Your task to perform on an android device: What's the weather today? Image 0: 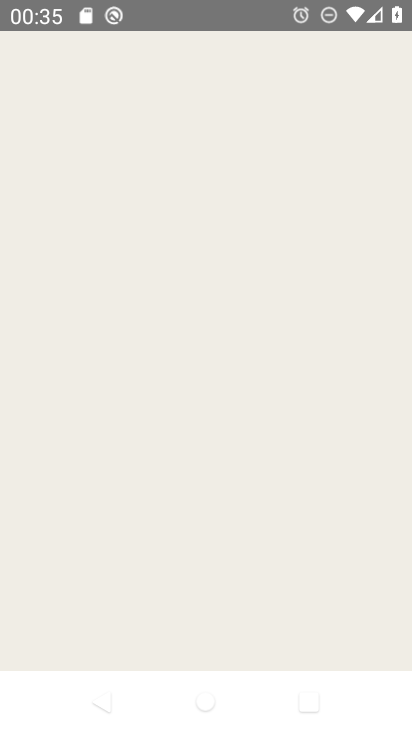
Step 0: press home button
Your task to perform on an android device: What's the weather today? Image 1: 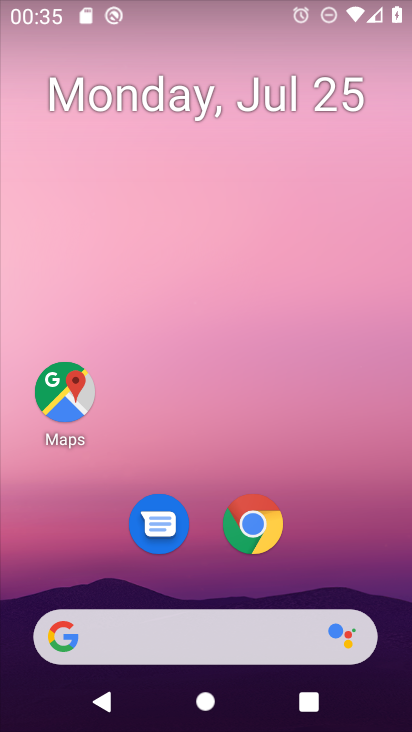
Step 1: click (170, 634)
Your task to perform on an android device: What's the weather today? Image 2: 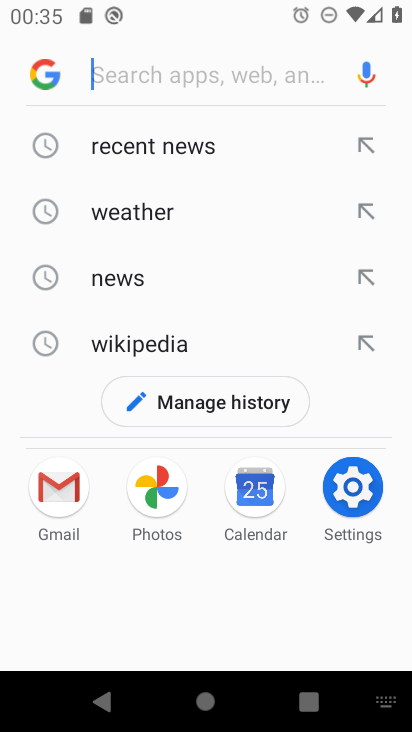
Step 2: click (148, 212)
Your task to perform on an android device: What's the weather today? Image 3: 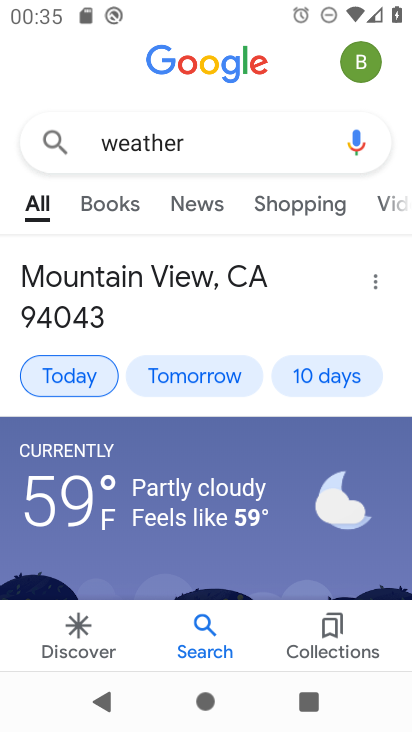
Step 3: task complete